Your task to perform on an android device: Open eBay Image 0: 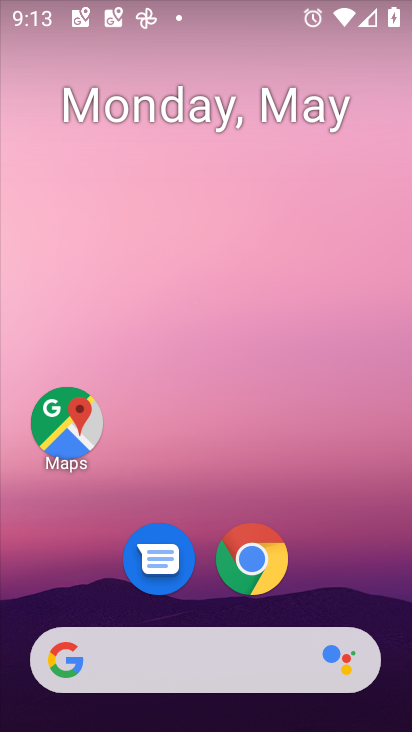
Step 0: drag from (393, 640) to (273, 49)
Your task to perform on an android device: Open eBay Image 1: 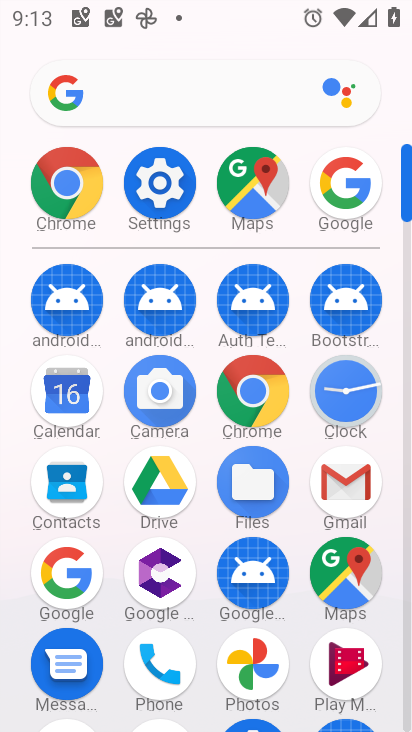
Step 1: click (73, 186)
Your task to perform on an android device: Open eBay Image 2: 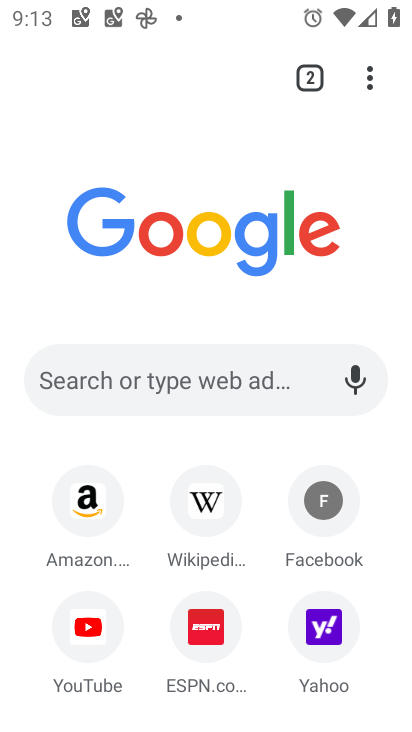
Step 2: drag from (154, 654) to (142, 258)
Your task to perform on an android device: Open eBay Image 3: 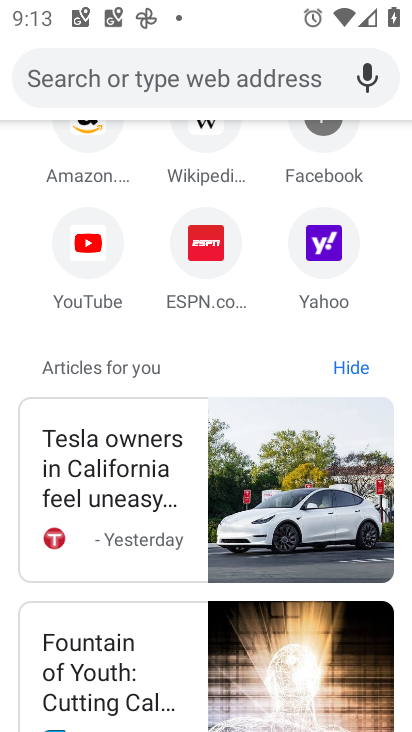
Step 3: drag from (142, 258) to (81, 564)
Your task to perform on an android device: Open eBay Image 4: 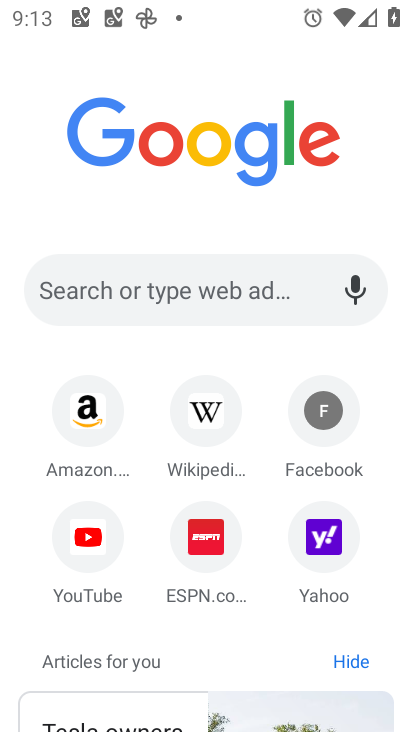
Step 4: click (131, 289)
Your task to perform on an android device: Open eBay Image 5: 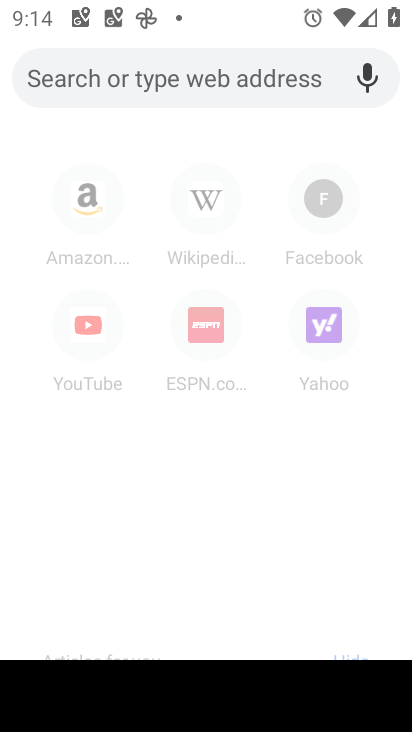
Step 5: type "ebay"
Your task to perform on an android device: Open eBay Image 6: 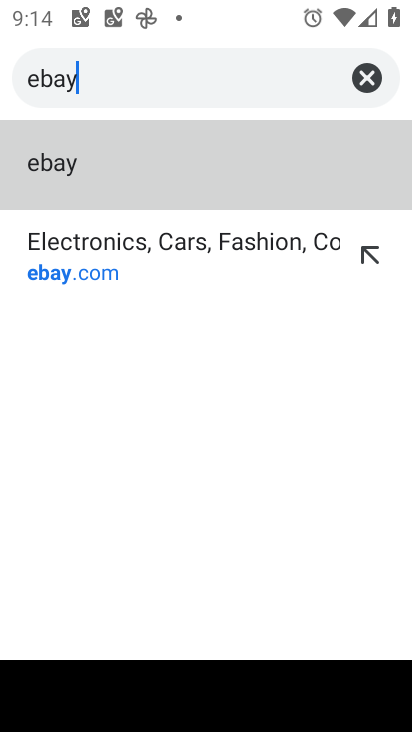
Step 6: click (57, 171)
Your task to perform on an android device: Open eBay Image 7: 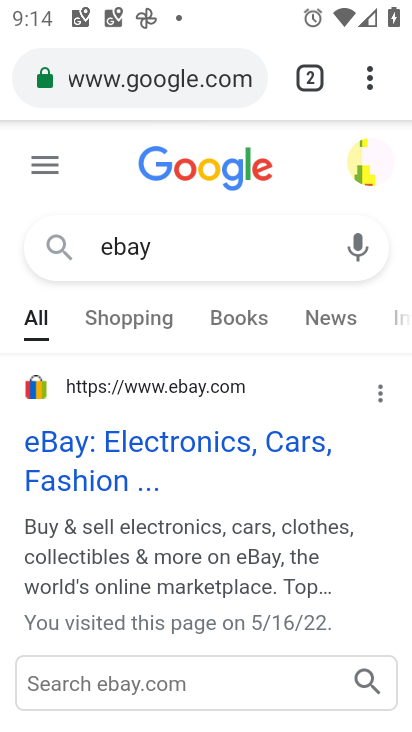
Step 7: task complete